Your task to perform on an android device: Go to calendar. Show me events next week Image 0: 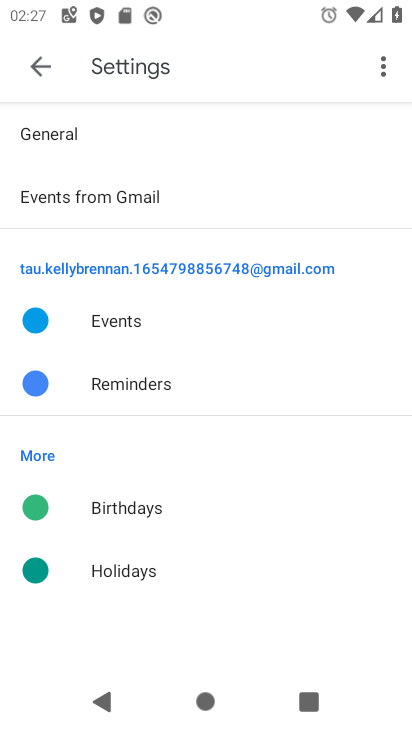
Step 0: press home button
Your task to perform on an android device: Go to calendar. Show me events next week Image 1: 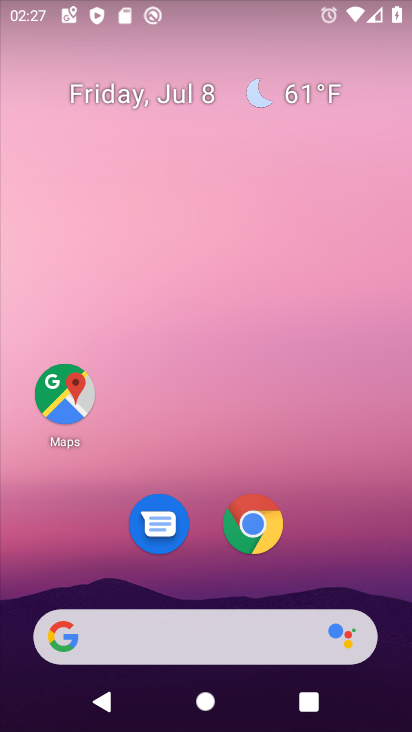
Step 1: drag from (301, 138) to (290, 45)
Your task to perform on an android device: Go to calendar. Show me events next week Image 2: 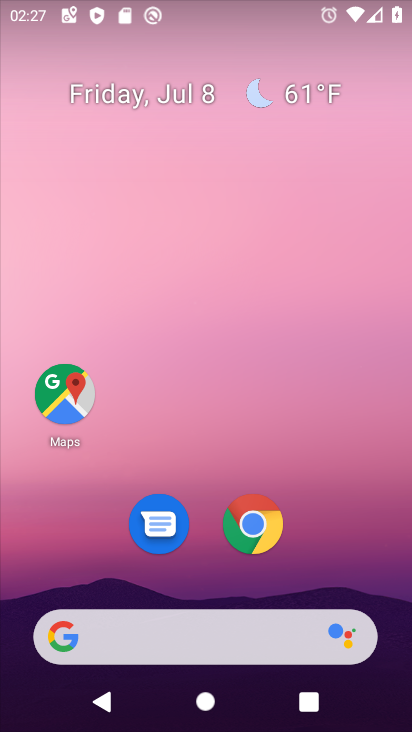
Step 2: drag from (344, 542) to (312, 44)
Your task to perform on an android device: Go to calendar. Show me events next week Image 3: 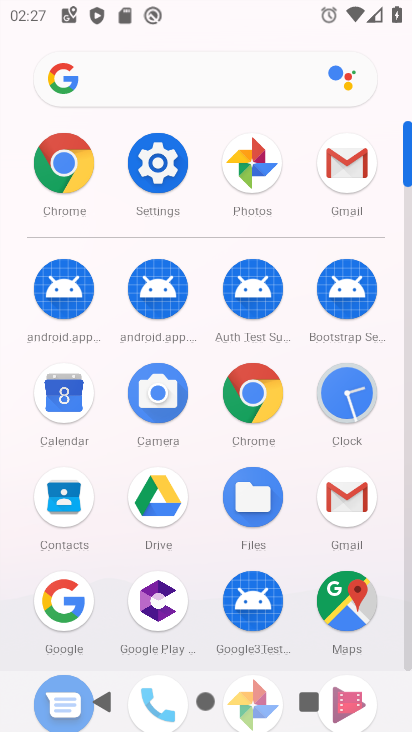
Step 3: click (73, 398)
Your task to perform on an android device: Go to calendar. Show me events next week Image 4: 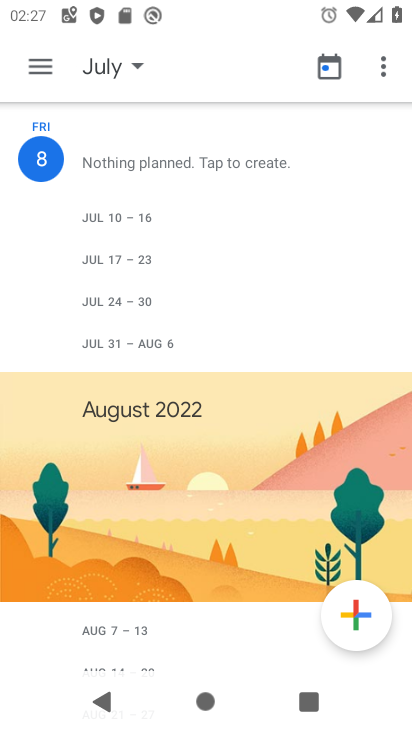
Step 4: click (45, 62)
Your task to perform on an android device: Go to calendar. Show me events next week Image 5: 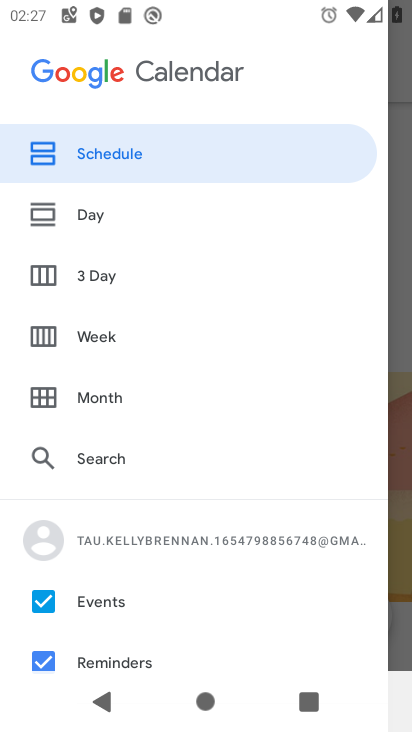
Step 5: click (41, 329)
Your task to perform on an android device: Go to calendar. Show me events next week Image 6: 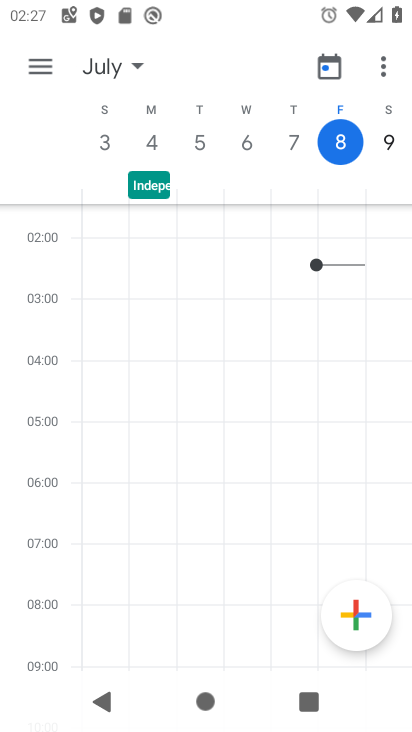
Step 6: task complete